Your task to perform on an android device: Go to Maps Image 0: 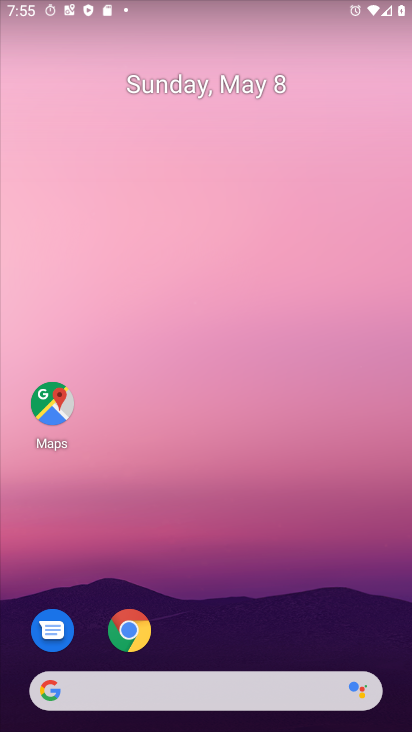
Step 0: drag from (196, 654) to (66, 0)
Your task to perform on an android device: Go to Maps Image 1: 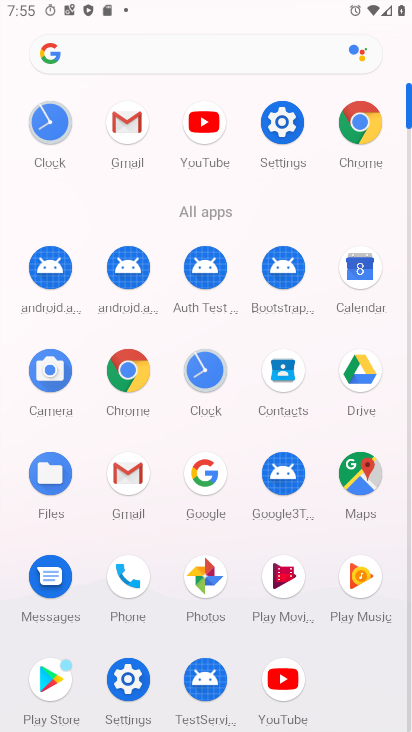
Step 1: click (359, 495)
Your task to perform on an android device: Go to Maps Image 2: 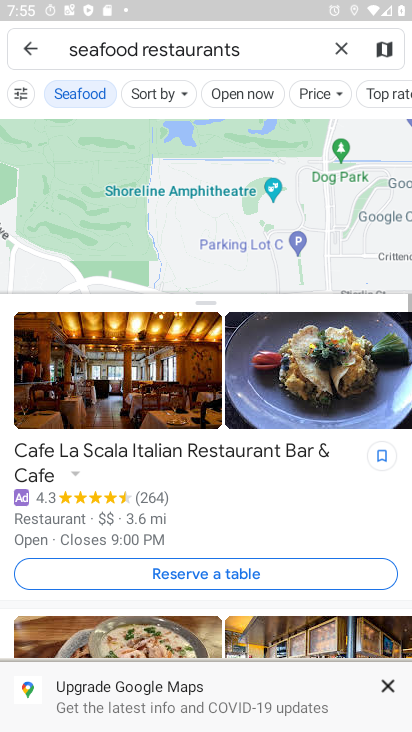
Step 2: click (31, 52)
Your task to perform on an android device: Go to Maps Image 3: 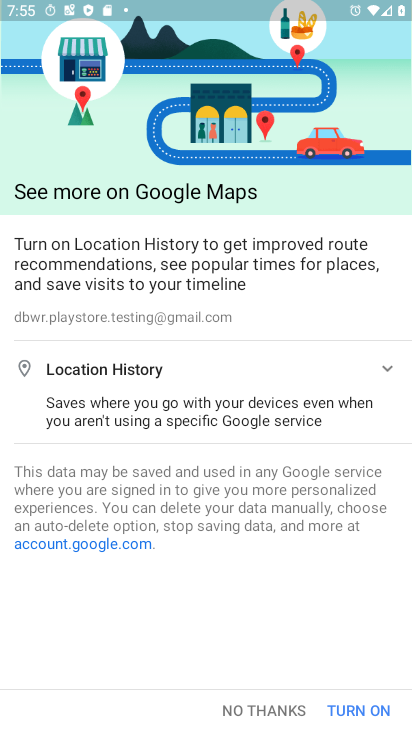
Step 3: click (294, 716)
Your task to perform on an android device: Go to Maps Image 4: 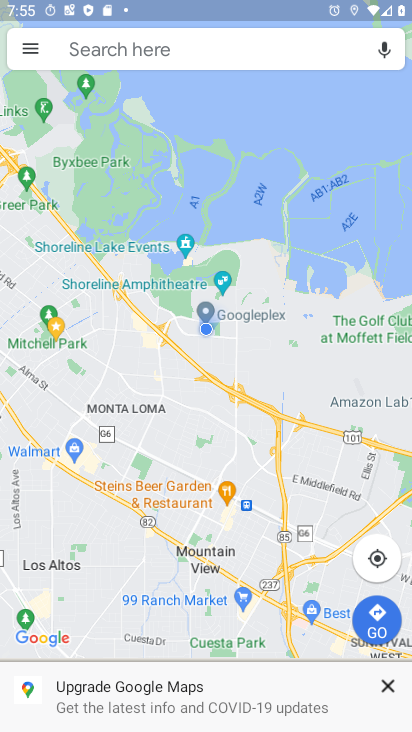
Step 4: task complete